Your task to perform on an android device: Go to eBay Image 0: 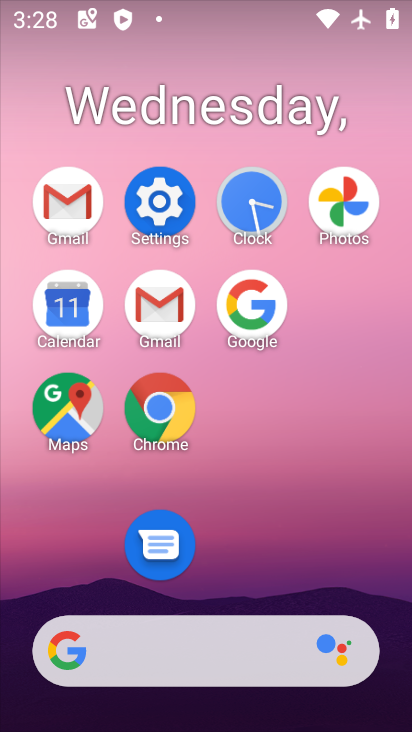
Step 0: click (166, 404)
Your task to perform on an android device: Go to eBay Image 1: 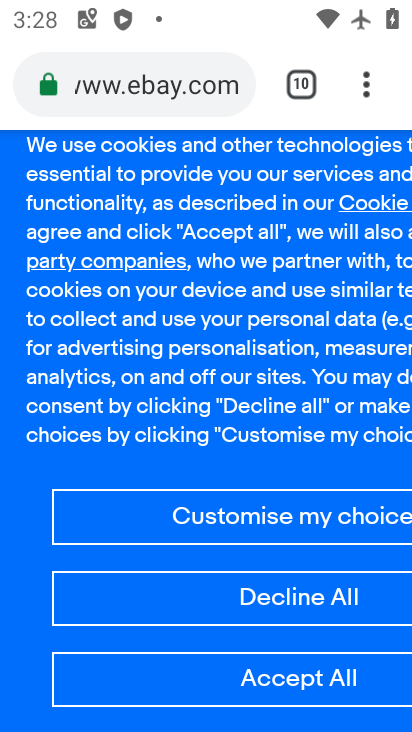
Step 1: task complete